Your task to perform on an android device: remove spam from my inbox in the gmail app Image 0: 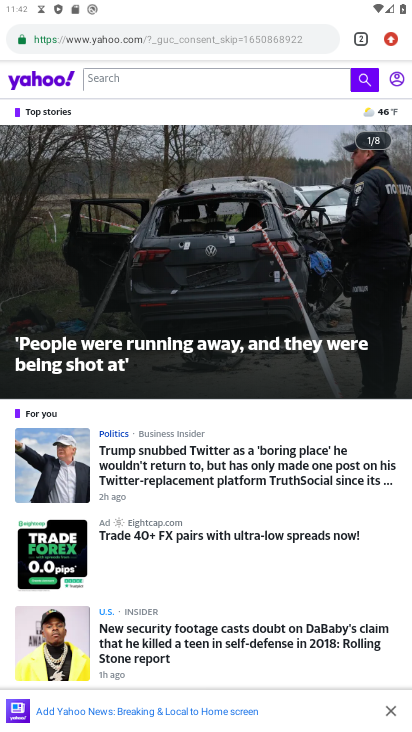
Step 0: press home button
Your task to perform on an android device: remove spam from my inbox in the gmail app Image 1: 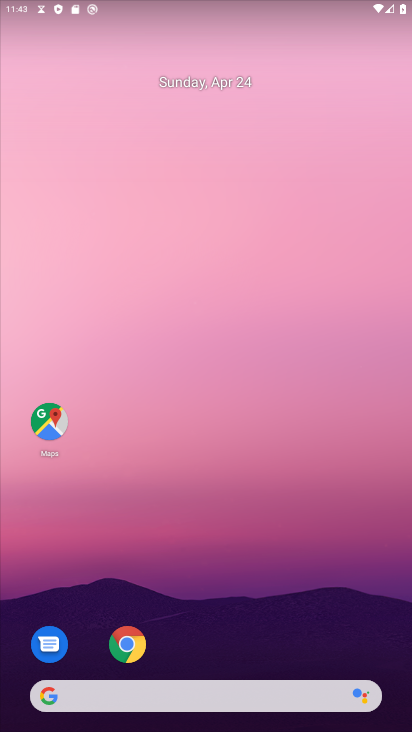
Step 1: drag from (313, 643) to (325, 7)
Your task to perform on an android device: remove spam from my inbox in the gmail app Image 2: 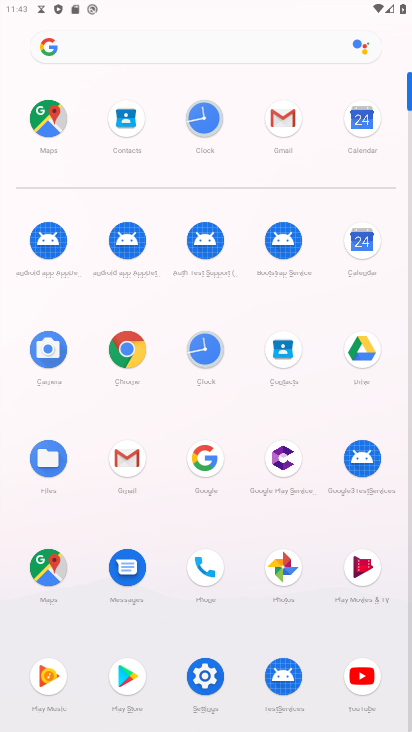
Step 2: click (282, 132)
Your task to perform on an android device: remove spam from my inbox in the gmail app Image 3: 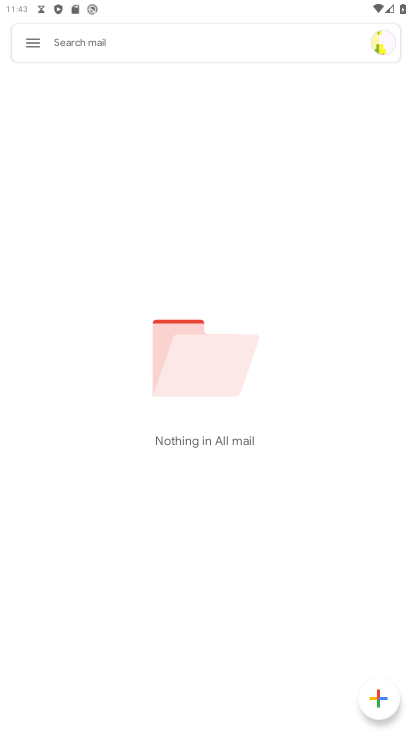
Step 3: click (28, 45)
Your task to perform on an android device: remove spam from my inbox in the gmail app Image 4: 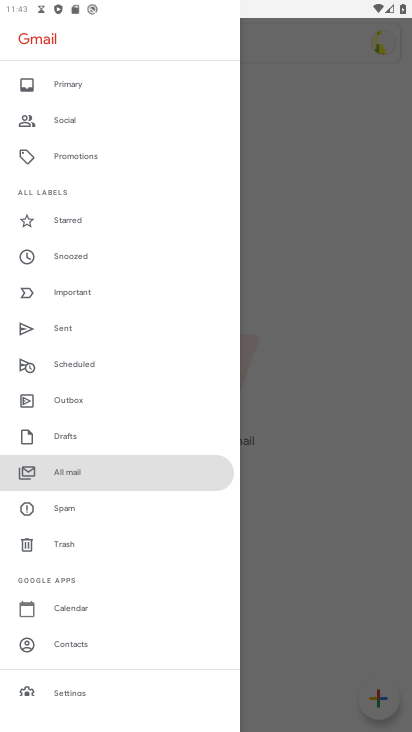
Step 4: click (70, 507)
Your task to perform on an android device: remove spam from my inbox in the gmail app Image 5: 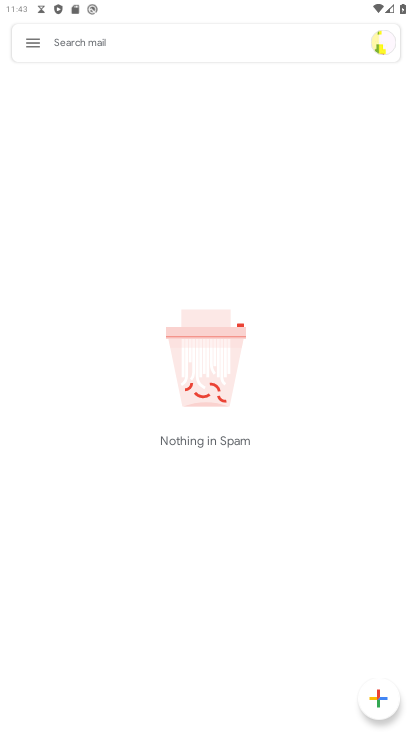
Step 5: task complete